Your task to perform on an android device: install app "Contacts" Image 0: 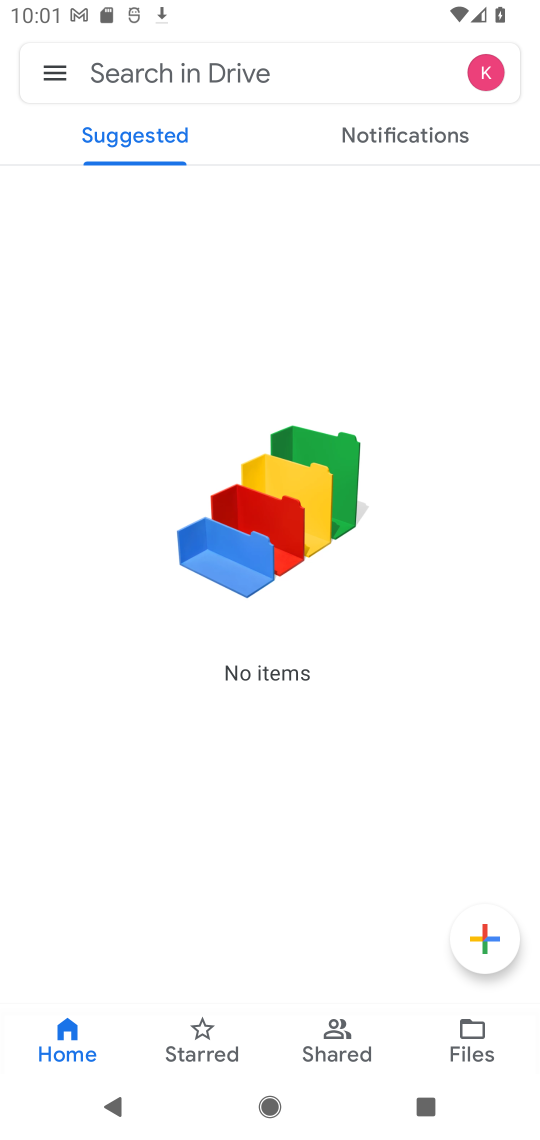
Step 0: press home button
Your task to perform on an android device: install app "Contacts" Image 1: 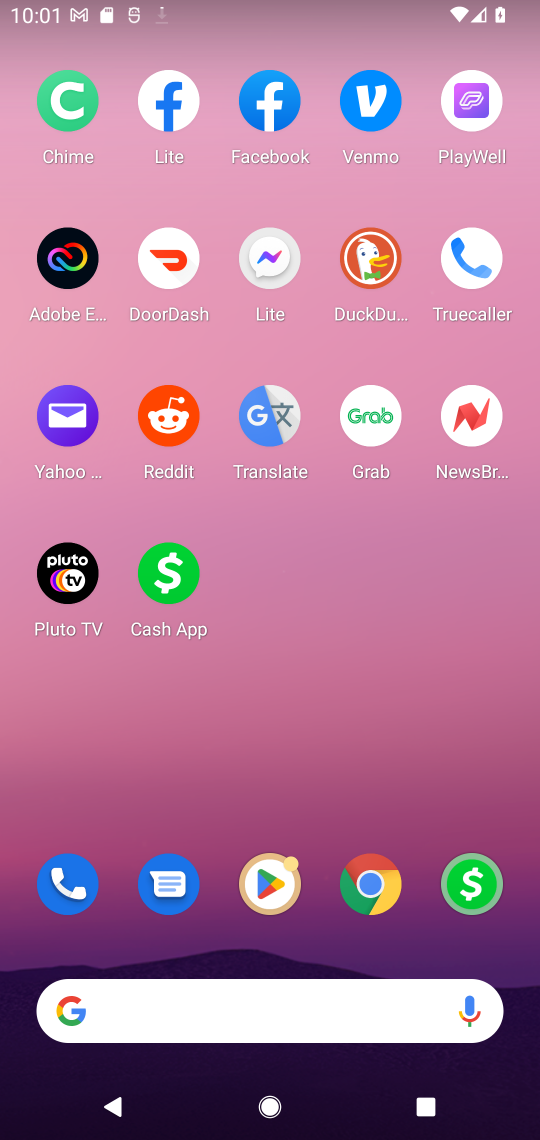
Step 1: click (275, 902)
Your task to perform on an android device: install app "Contacts" Image 2: 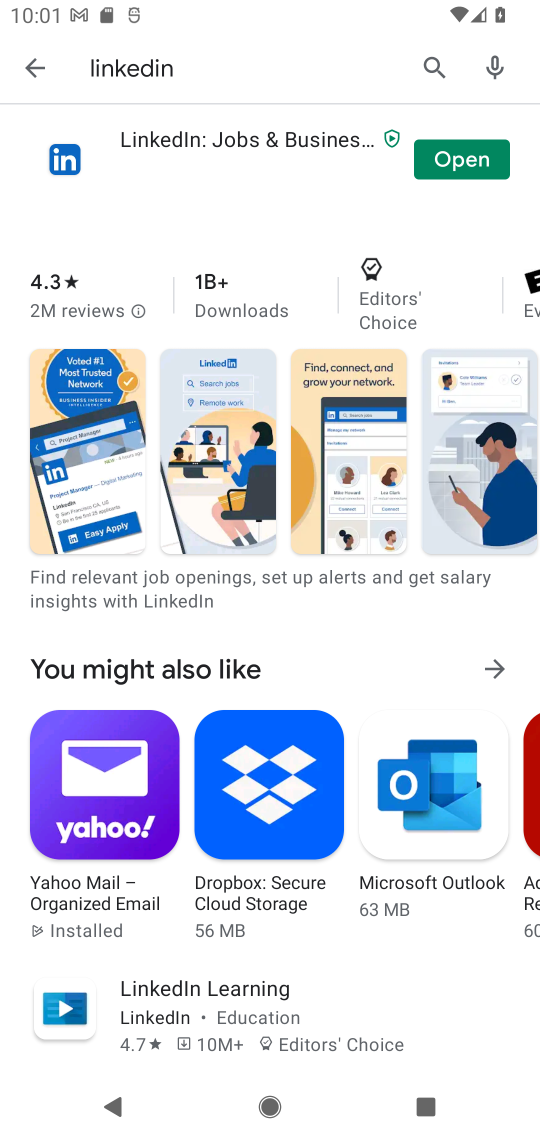
Step 2: click (432, 77)
Your task to perform on an android device: install app "Contacts" Image 3: 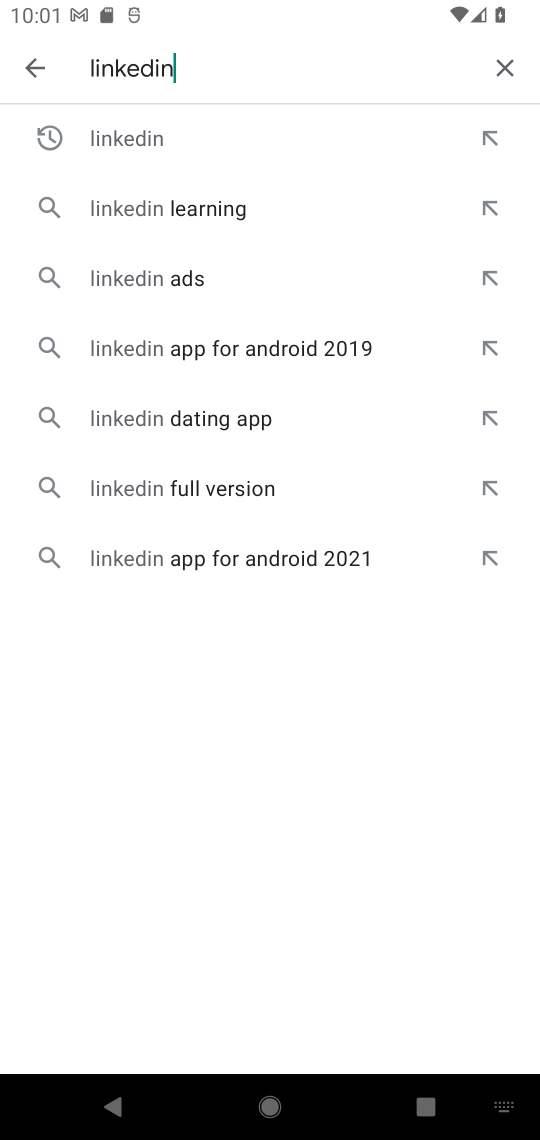
Step 3: click (509, 65)
Your task to perform on an android device: install app "Contacts" Image 4: 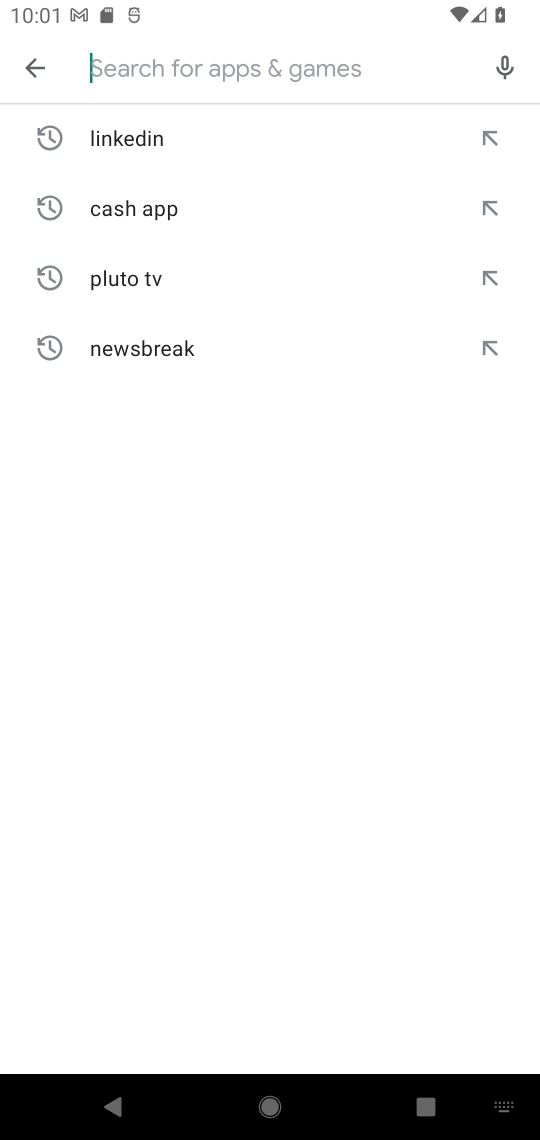
Step 4: type "contact"
Your task to perform on an android device: install app "Contacts" Image 5: 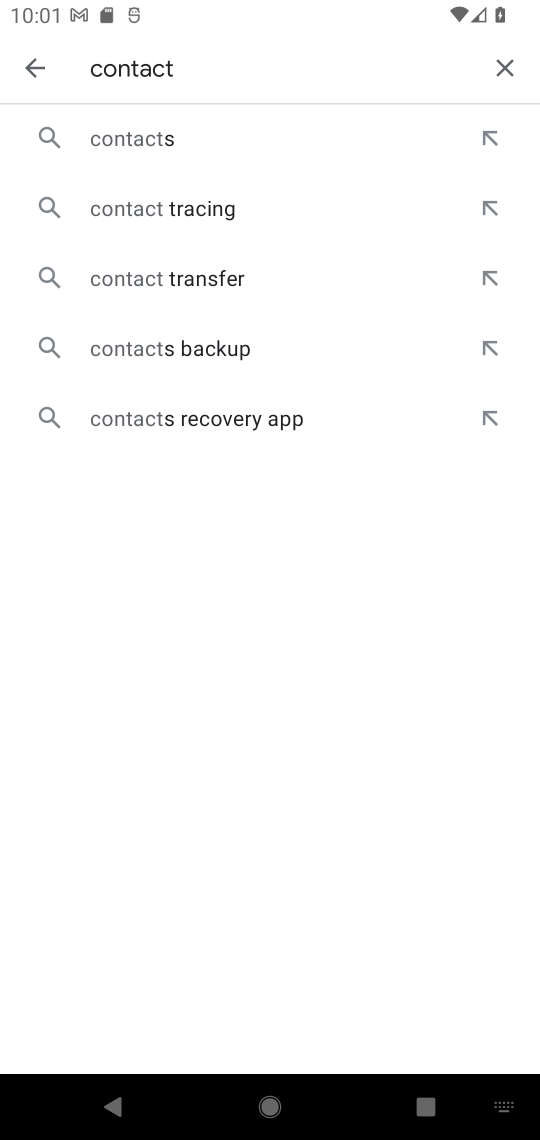
Step 5: click (133, 127)
Your task to perform on an android device: install app "Contacts" Image 6: 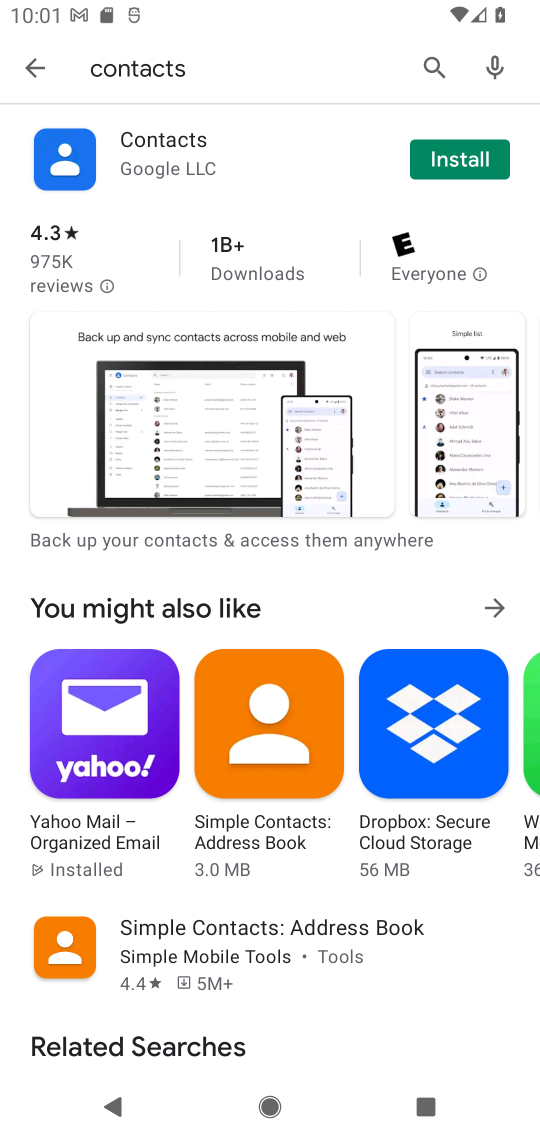
Step 6: click (407, 171)
Your task to perform on an android device: install app "Contacts" Image 7: 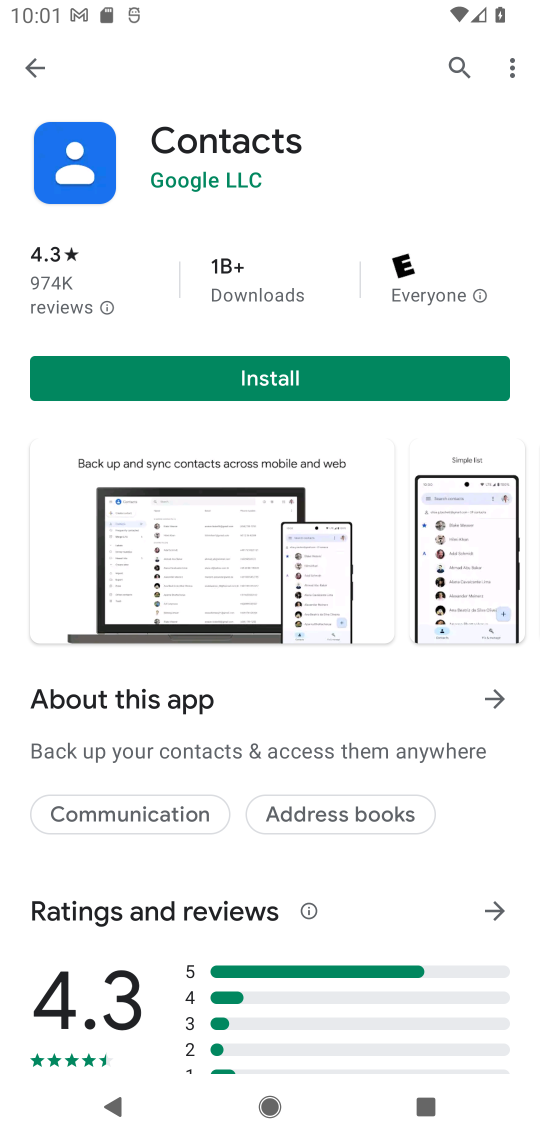
Step 7: task complete